Your task to perform on an android device: open app "Facebook" (install if not already installed) Image 0: 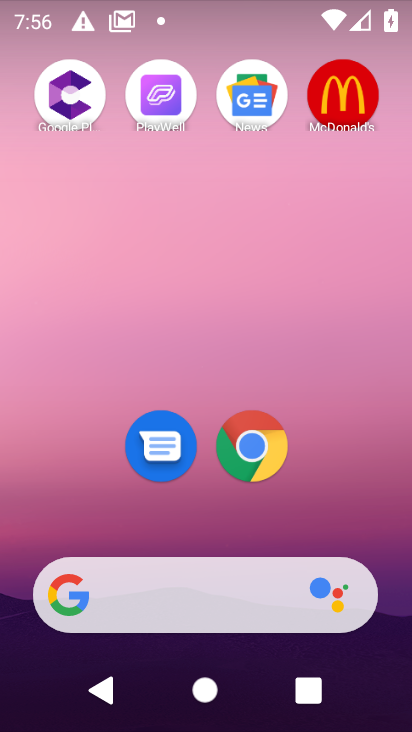
Step 0: drag from (209, 530) to (189, 77)
Your task to perform on an android device: open app "Facebook" (install if not already installed) Image 1: 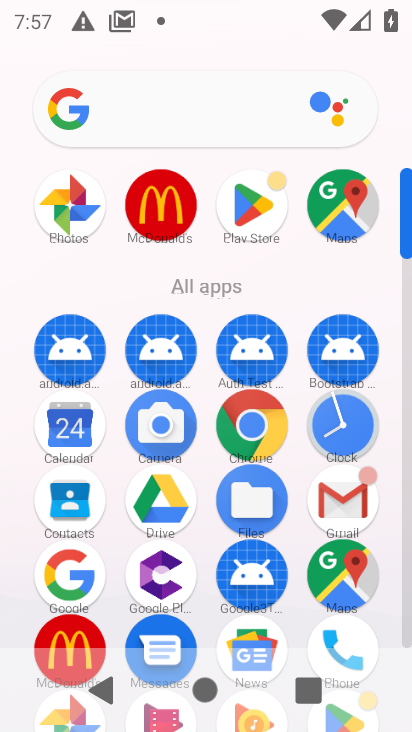
Step 1: click (245, 195)
Your task to perform on an android device: open app "Facebook" (install if not already installed) Image 2: 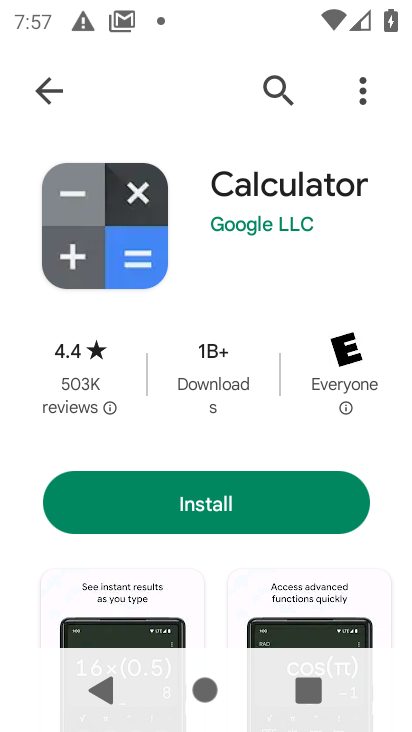
Step 2: click (277, 79)
Your task to perform on an android device: open app "Facebook" (install if not already installed) Image 3: 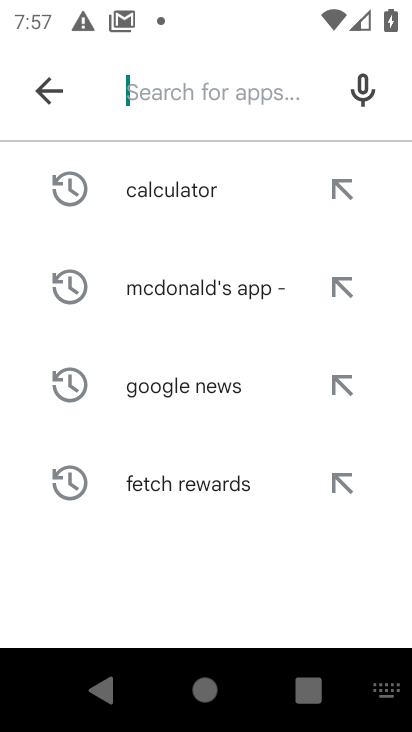
Step 3: type "Facebook"
Your task to perform on an android device: open app "Facebook" (install if not already installed) Image 4: 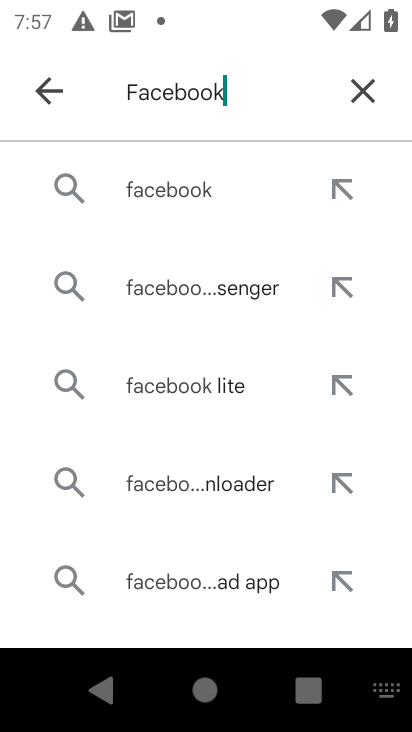
Step 4: click (148, 189)
Your task to perform on an android device: open app "Facebook" (install if not already installed) Image 5: 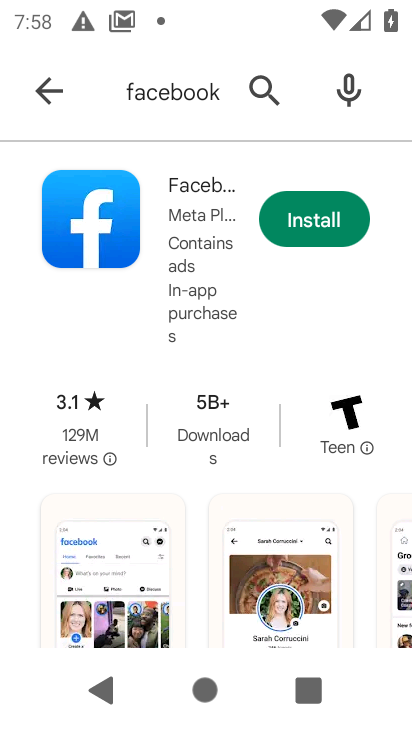
Step 5: click (326, 205)
Your task to perform on an android device: open app "Facebook" (install if not already installed) Image 6: 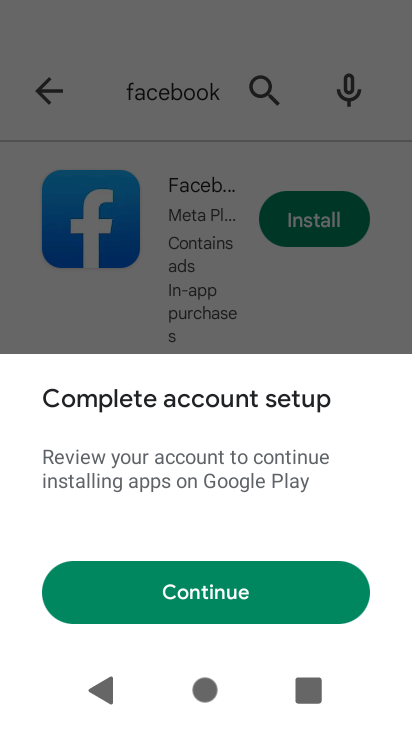
Step 6: click (213, 597)
Your task to perform on an android device: open app "Facebook" (install if not already installed) Image 7: 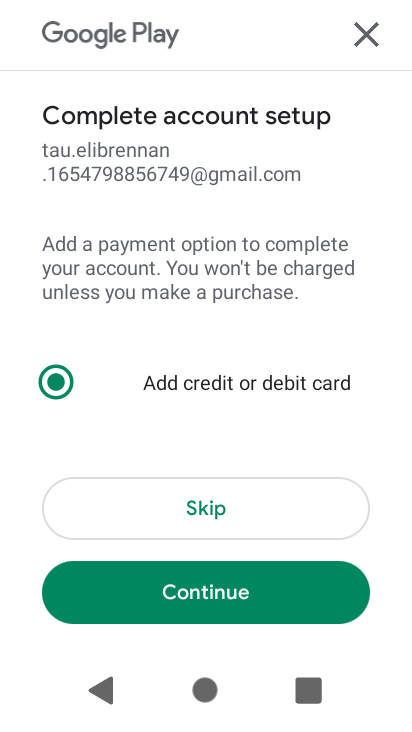
Step 7: click (194, 514)
Your task to perform on an android device: open app "Facebook" (install if not already installed) Image 8: 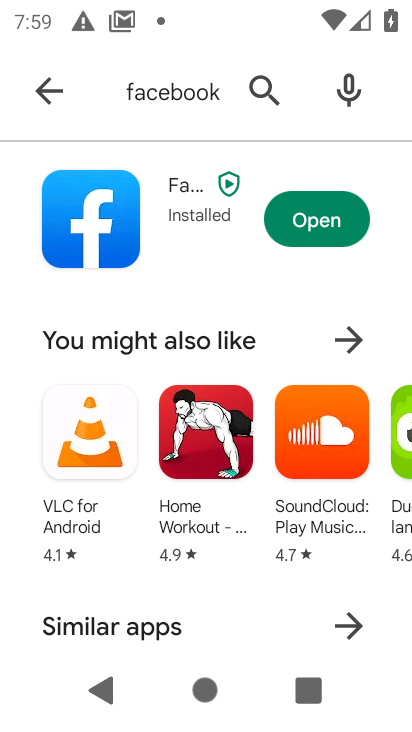
Step 8: click (319, 221)
Your task to perform on an android device: open app "Facebook" (install if not already installed) Image 9: 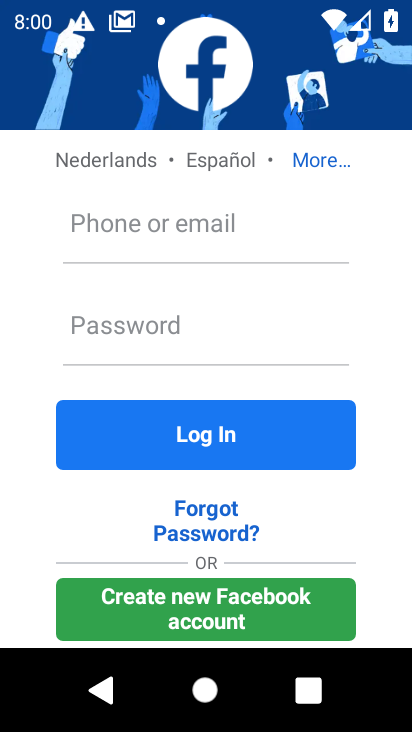
Step 9: task complete